Your task to perform on an android device: allow notifications from all sites in the chrome app Image 0: 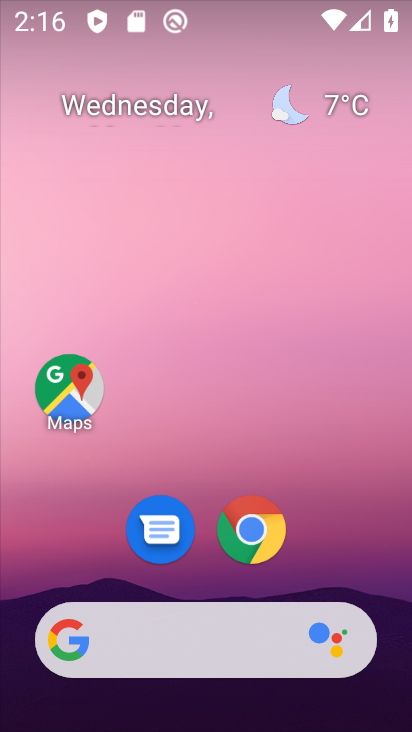
Step 0: click (250, 520)
Your task to perform on an android device: allow notifications from all sites in the chrome app Image 1: 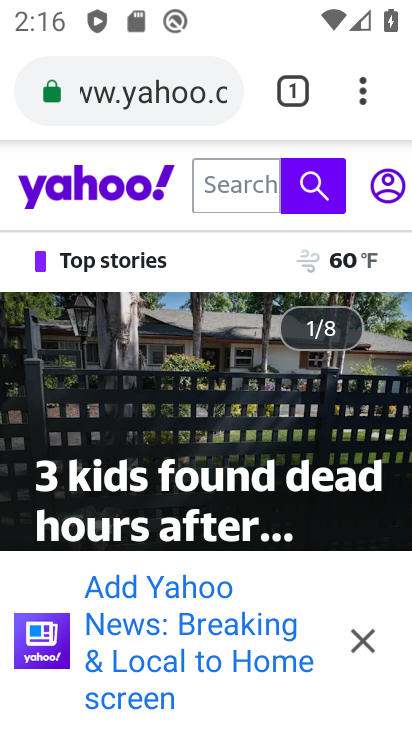
Step 1: click (351, 86)
Your task to perform on an android device: allow notifications from all sites in the chrome app Image 2: 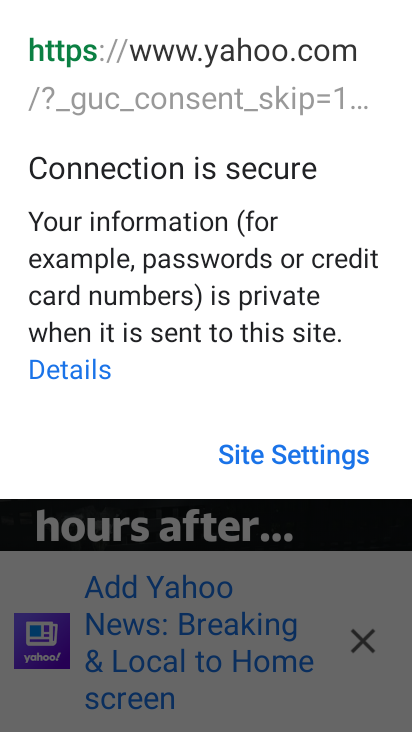
Step 2: press back button
Your task to perform on an android device: allow notifications from all sites in the chrome app Image 3: 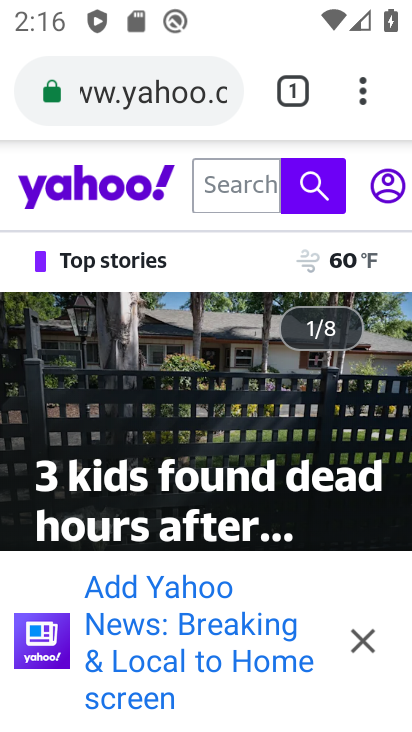
Step 3: click (363, 83)
Your task to perform on an android device: allow notifications from all sites in the chrome app Image 4: 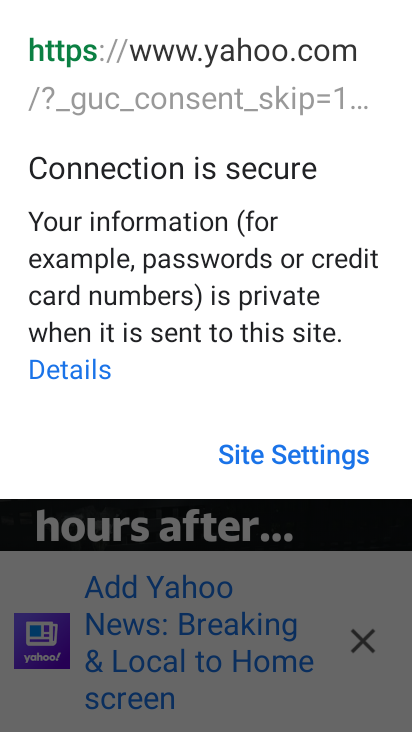
Step 4: press back button
Your task to perform on an android device: allow notifications from all sites in the chrome app Image 5: 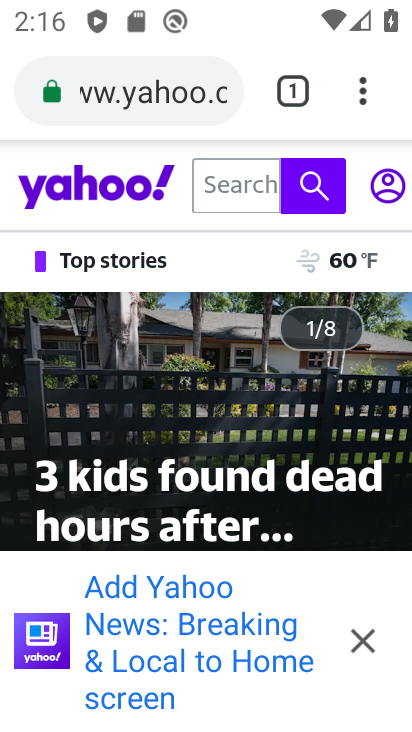
Step 5: click (369, 93)
Your task to perform on an android device: allow notifications from all sites in the chrome app Image 6: 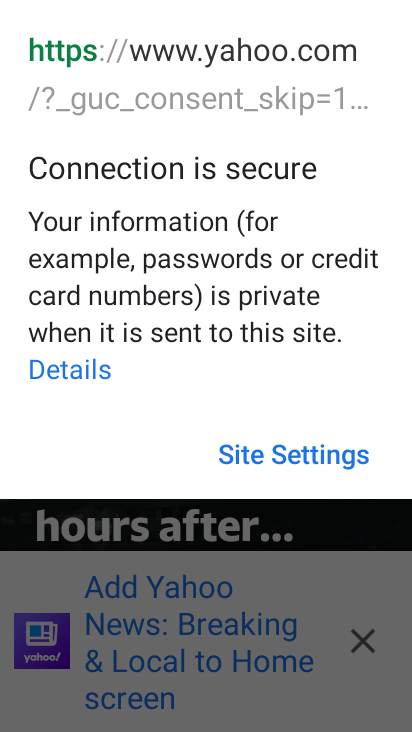
Step 6: press back button
Your task to perform on an android device: allow notifications from all sites in the chrome app Image 7: 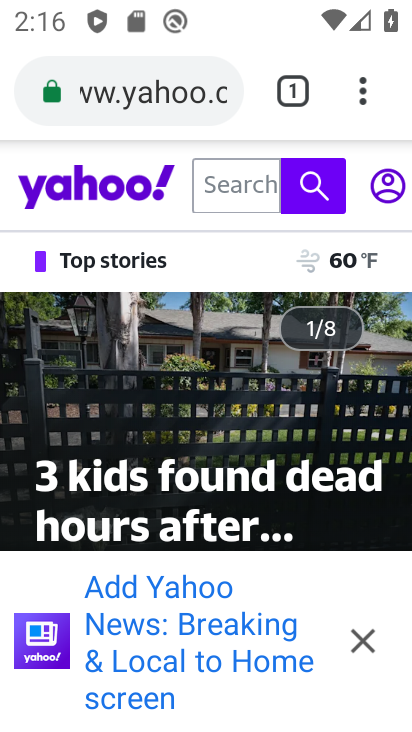
Step 7: click (354, 94)
Your task to perform on an android device: allow notifications from all sites in the chrome app Image 8: 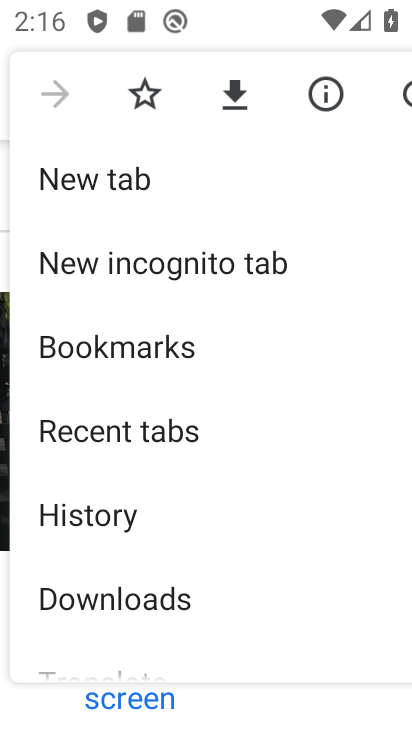
Step 8: drag from (87, 640) to (255, 180)
Your task to perform on an android device: allow notifications from all sites in the chrome app Image 9: 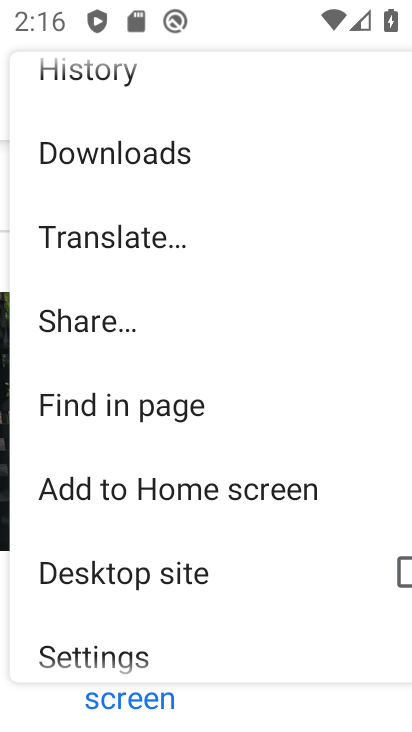
Step 9: click (98, 653)
Your task to perform on an android device: allow notifications from all sites in the chrome app Image 10: 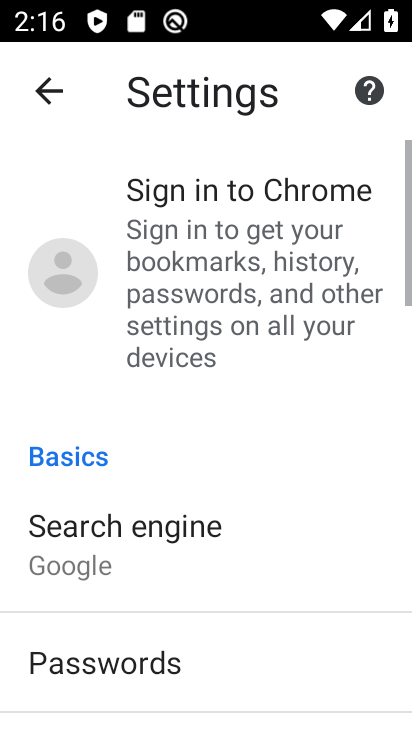
Step 10: drag from (106, 658) to (318, 161)
Your task to perform on an android device: allow notifications from all sites in the chrome app Image 11: 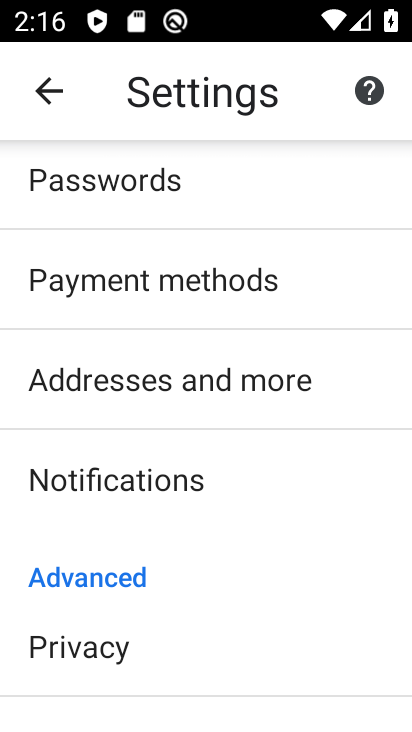
Step 11: click (175, 492)
Your task to perform on an android device: allow notifications from all sites in the chrome app Image 12: 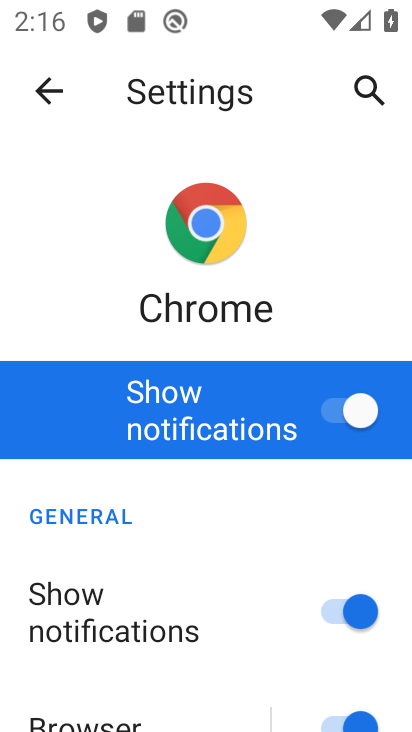
Step 12: task complete